Your task to perform on an android device: uninstall "Truecaller" Image 0: 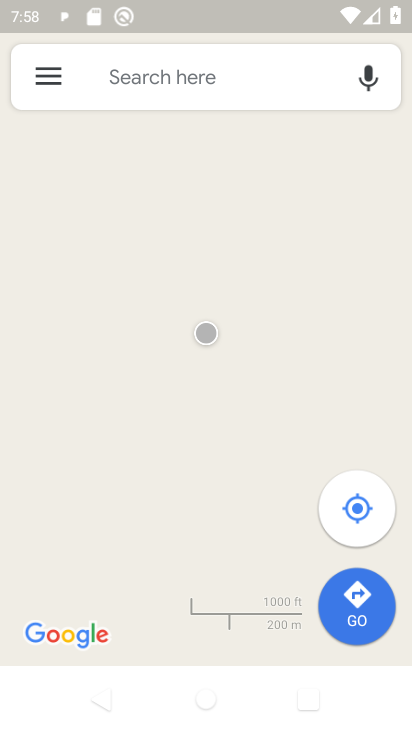
Step 0: press home button
Your task to perform on an android device: uninstall "Truecaller" Image 1: 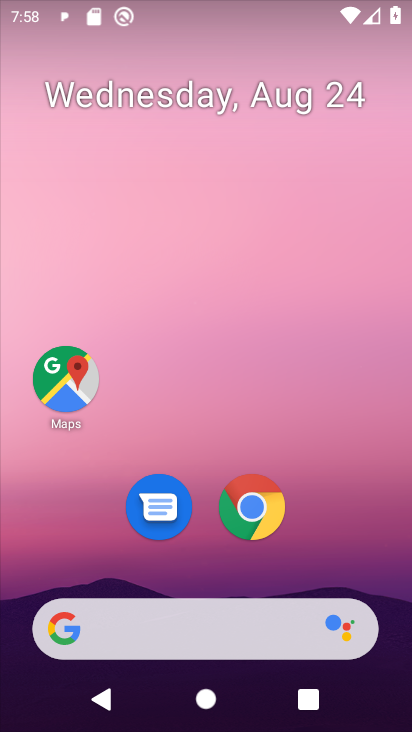
Step 1: drag from (378, 565) to (360, 101)
Your task to perform on an android device: uninstall "Truecaller" Image 2: 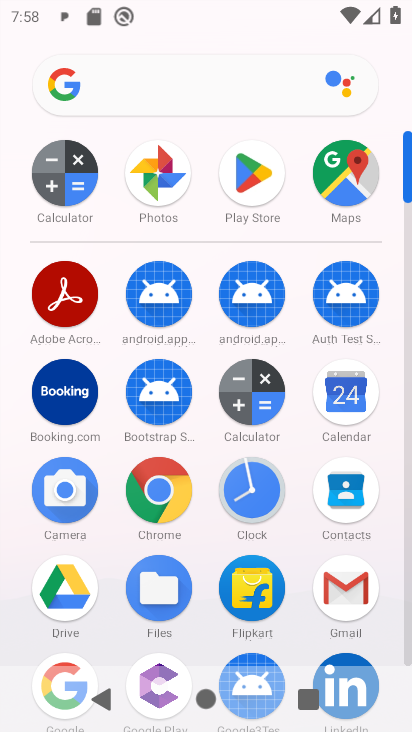
Step 2: click (251, 179)
Your task to perform on an android device: uninstall "Truecaller" Image 3: 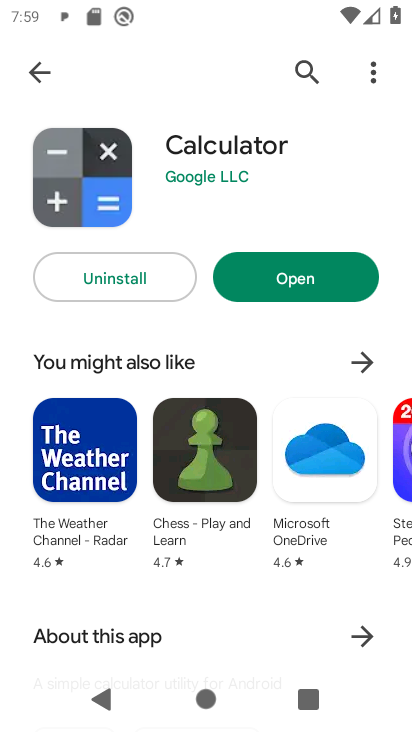
Step 3: press back button
Your task to perform on an android device: uninstall "Truecaller" Image 4: 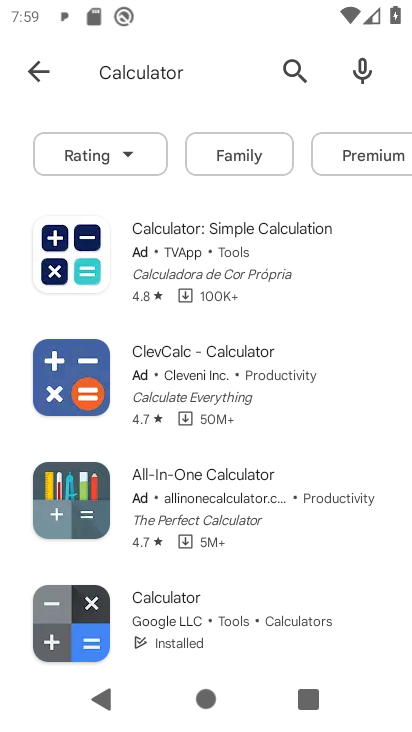
Step 4: press back button
Your task to perform on an android device: uninstall "Truecaller" Image 5: 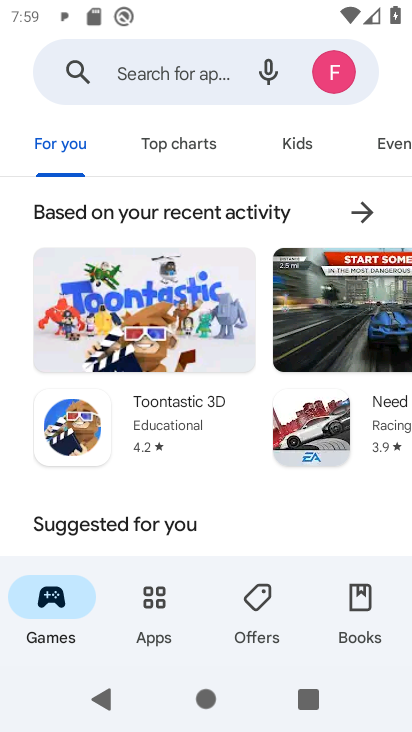
Step 5: click (155, 71)
Your task to perform on an android device: uninstall "Truecaller" Image 6: 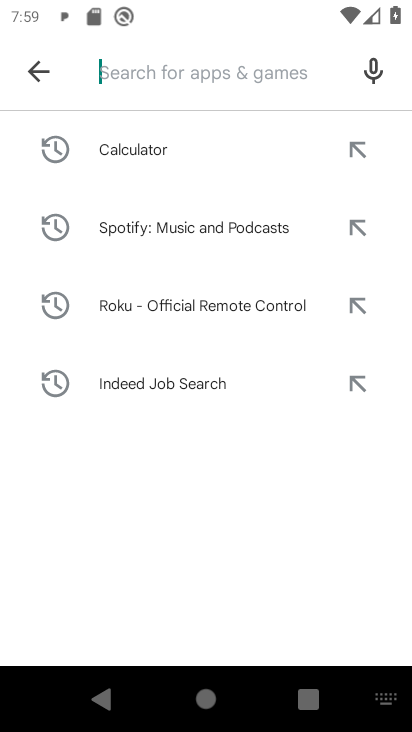
Step 6: press enter
Your task to perform on an android device: uninstall "Truecaller" Image 7: 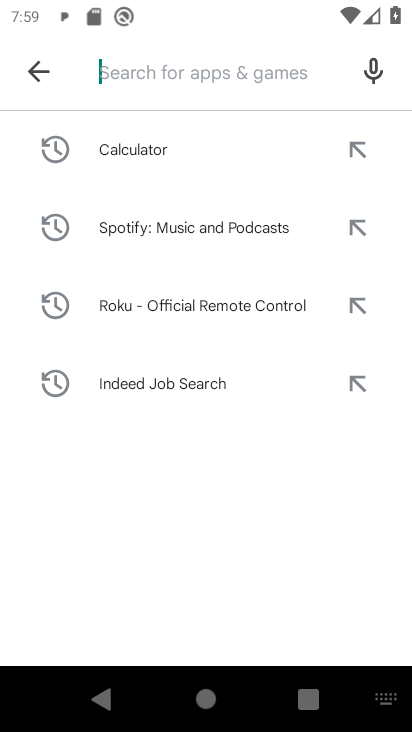
Step 7: type "truecaller"
Your task to perform on an android device: uninstall "Truecaller" Image 8: 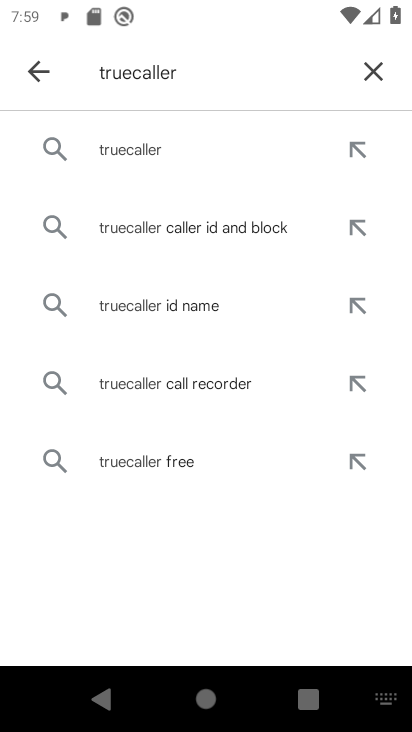
Step 8: click (163, 157)
Your task to perform on an android device: uninstall "Truecaller" Image 9: 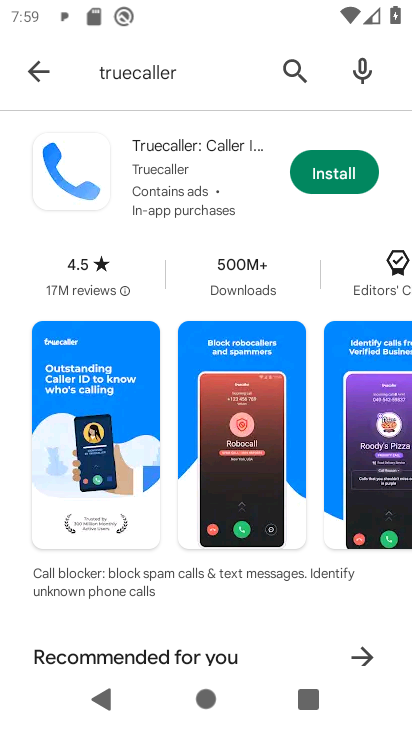
Step 9: task complete